Your task to perform on an android device: Go to Wikipedia Image 0: 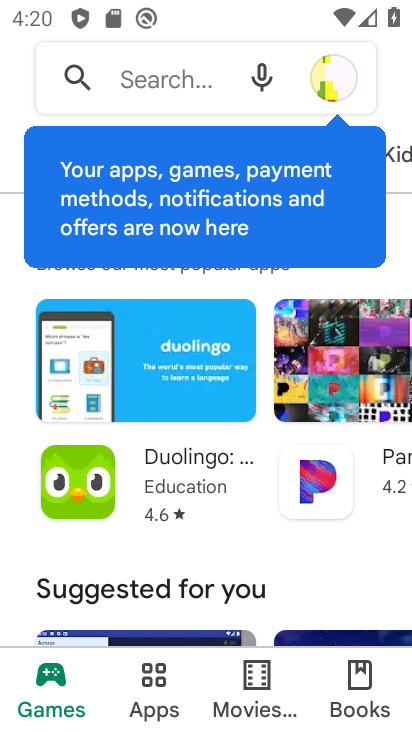
Step 0: press home button
Your task to perform on an android device: Go to Wikipedia Image 1: 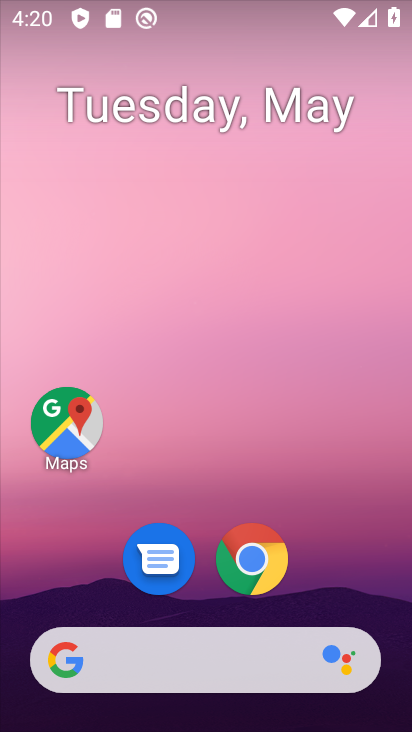
Step 1: click (247, 554)
Your task to perform on an android device: Go to Wikipedia Image 2: 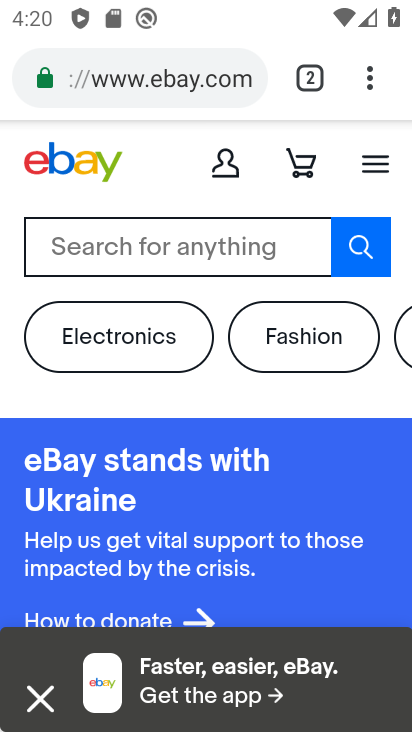
Step 2: click (319, 80)
Your task to perform on an android device: Go to Wikipedia Image 3: 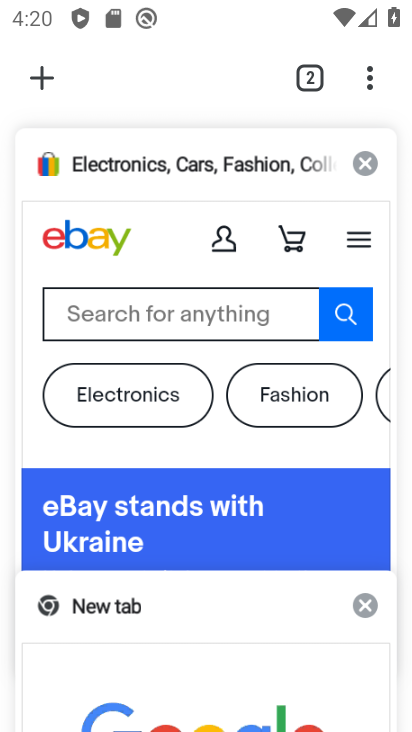
Step 3: click (366, 165)
Your task to perform on an android device: Go to Wikipedia Image 4: 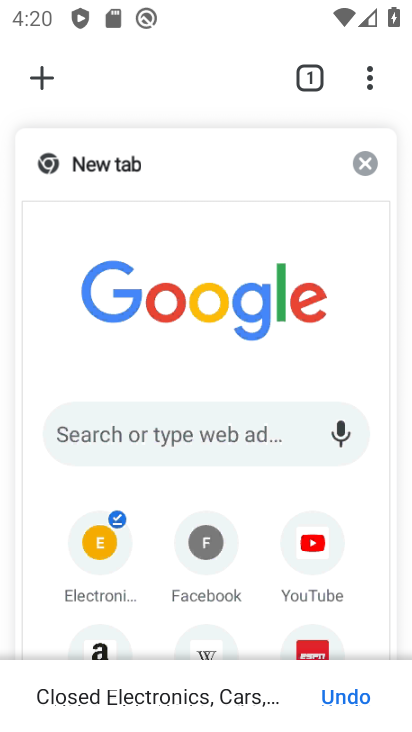
Step 4: click (367, 165)
Your task to perform on an android device: Go to Wikipedia Image 5: 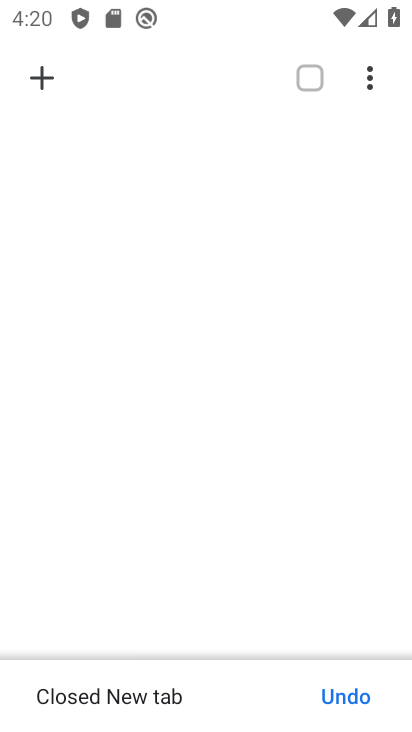
Step 5: click (51, 81)
Your task to perform on an android device: Go to Wikipedia Image 6: 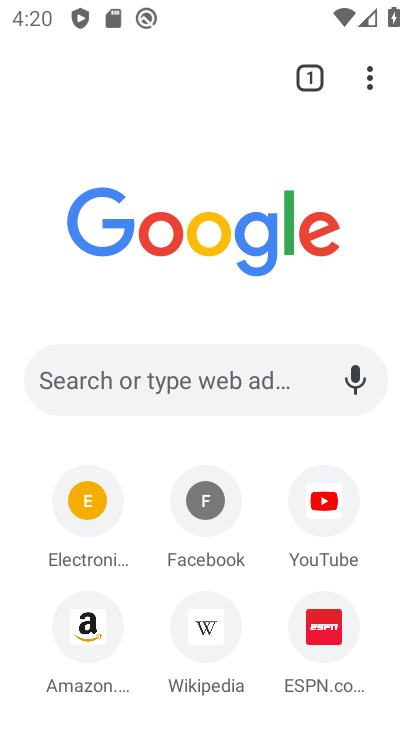
Step 6: click (211, 642)
Your task to perform on an android device: Go to Wikipedia Image 7: 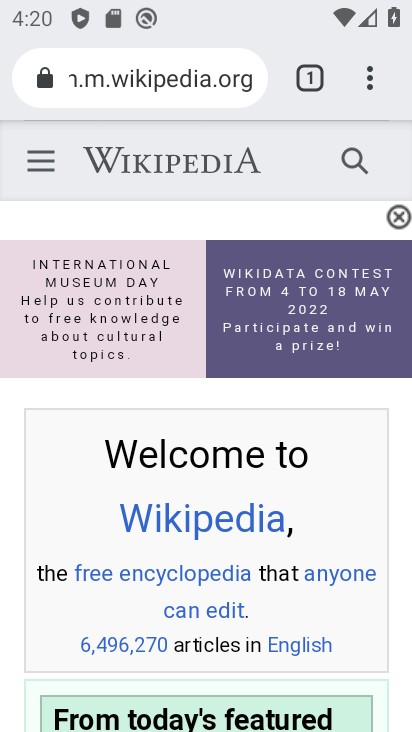
Step 7: task complete